Your task to perform on an android device: turn pop-ups off in chrome Image 0: 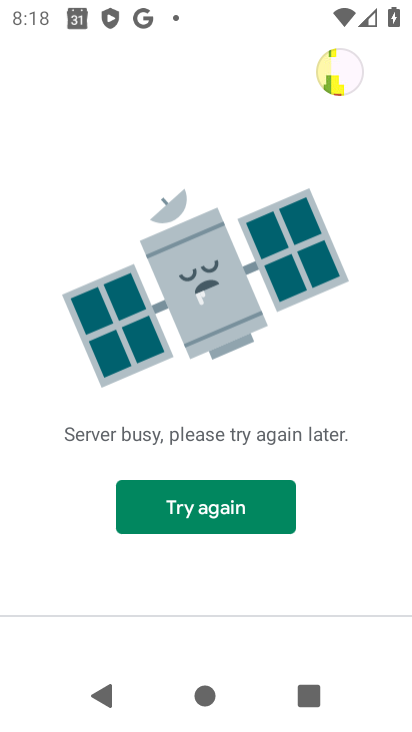
Step 0: press back button
Your task to perform on an android device: turn pop-ups off in chrome Image 1: 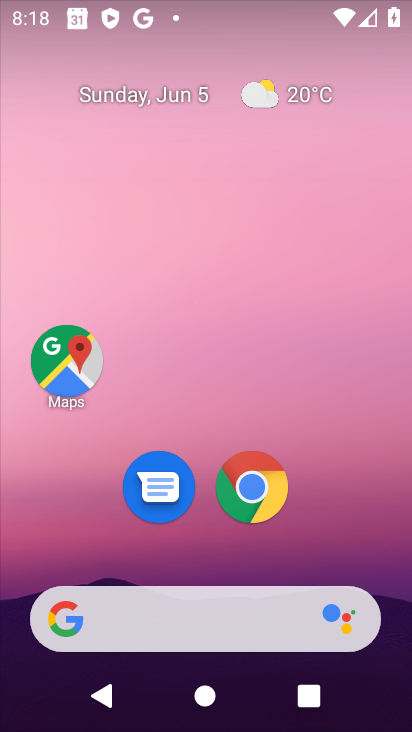
Step 1: click (245, 492)
Your task to perform on an android device: turn pop-ups off in chrome Image 2: 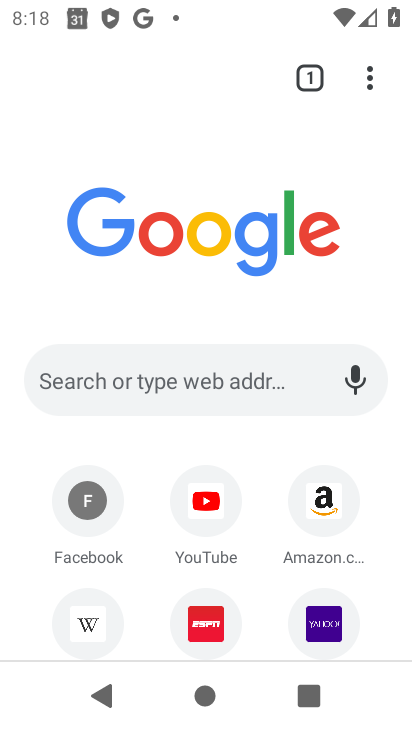
Step 2: drag from (370, 76) to (112, 551)
Your task to perform on an android device: turn pop-ups off in chrome Image 3: 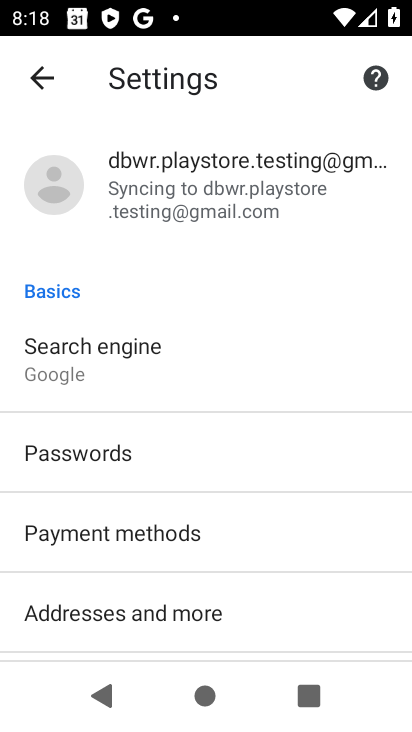
Step 3: drag from (320, 602) to (386, 150)
Your task to perform on an android device: turn pop-ups off in chrome Image 4: 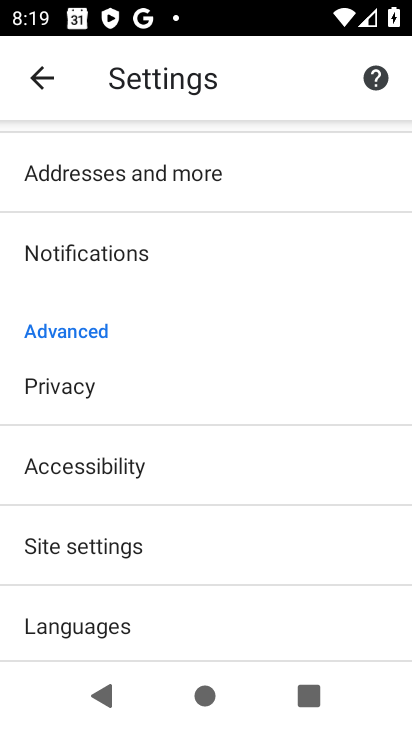
Step 4: click (118, 557)
Your task to perform on an android device: turn pop-ups off in chrome Image 5: 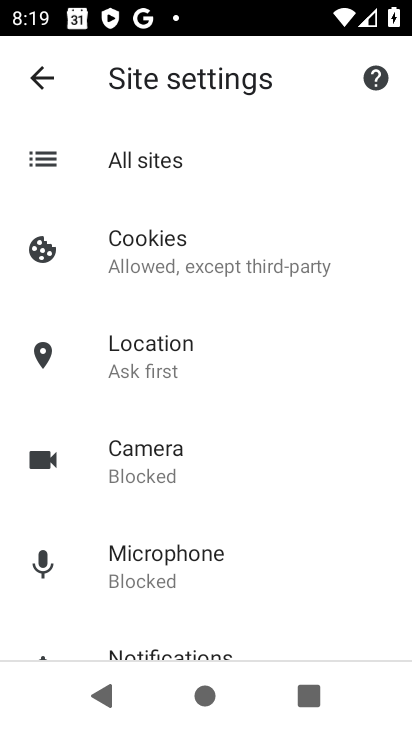
Step 5: drag from (123, 609) to (201, 120)
Your task to perform on an android device: turn pop-ups off in chrome Image 6: 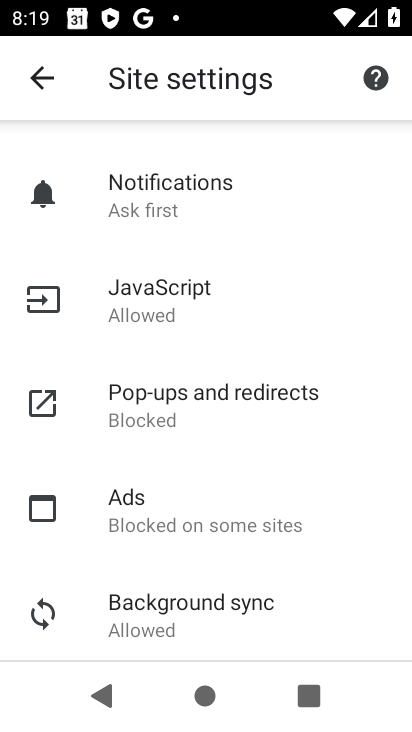
Step 6: click (196, 378)
Your task to perform on an android device: turn pop-ups off in chrome Image 7: 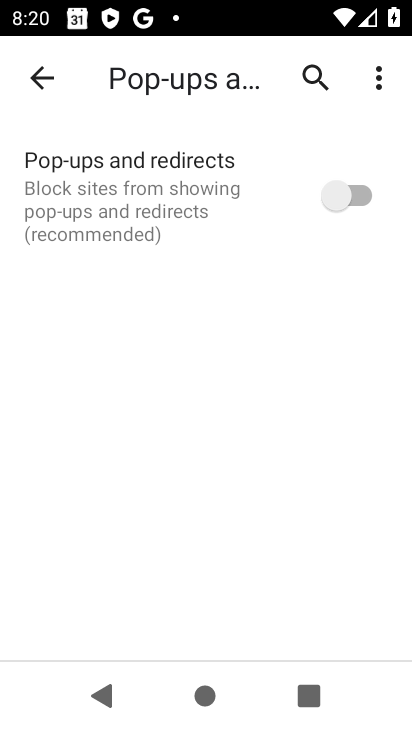
Step 7: task complete